Your task to perform on an android device: Find coffee shops on Maps Image 0: 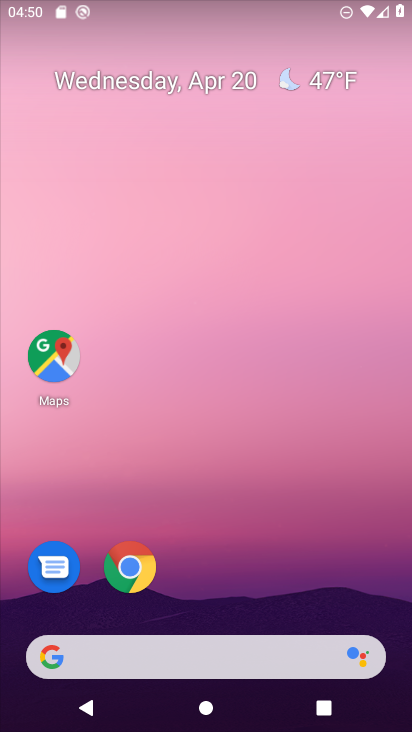
Step 0: click (52, 359)
Your task to perform on an android device: Find coffee shops on Maps Image 1: 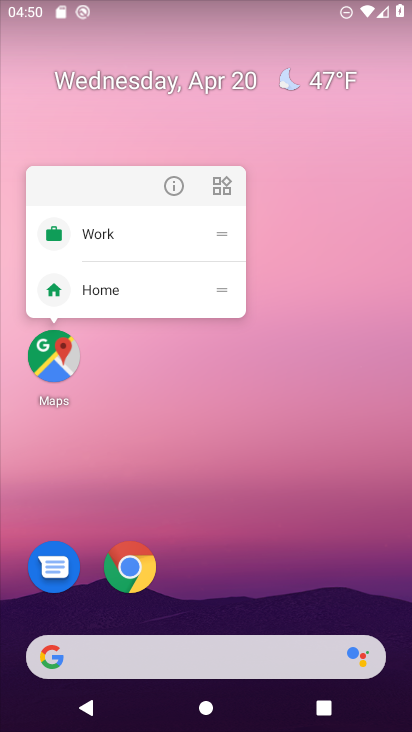
Step 1: click (151, 284)
Your task to perform on an android device: Find coffee shops on Maps Image 2: 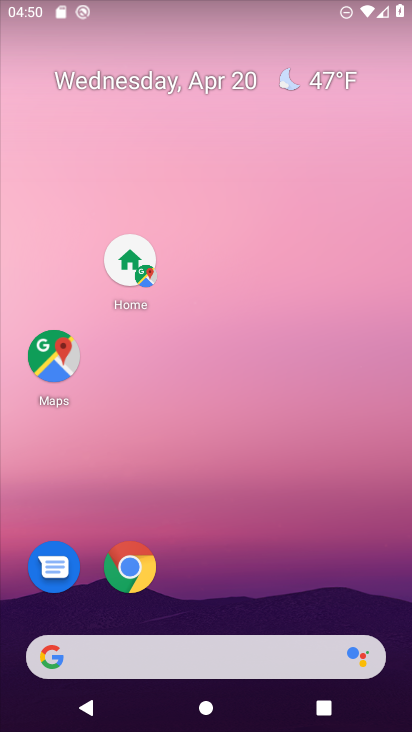
Step 2: click (130, 264)
Your task to perform on an android device: Find coffee shops on Maps Image 3: 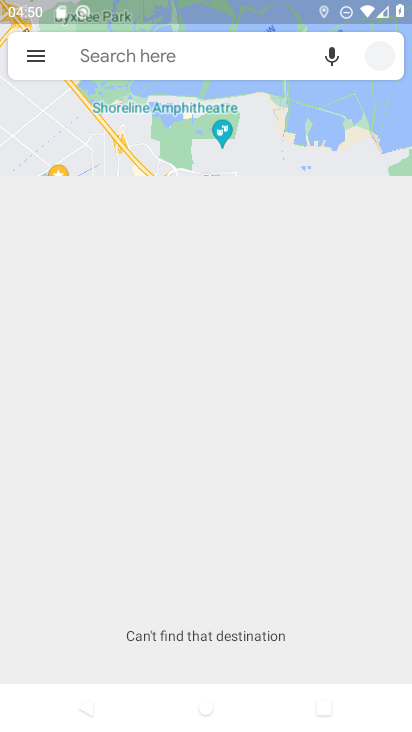
Step 3: click (353, 493)
Your task to perform on an android device: Find coffee shops on Maps Image 4: 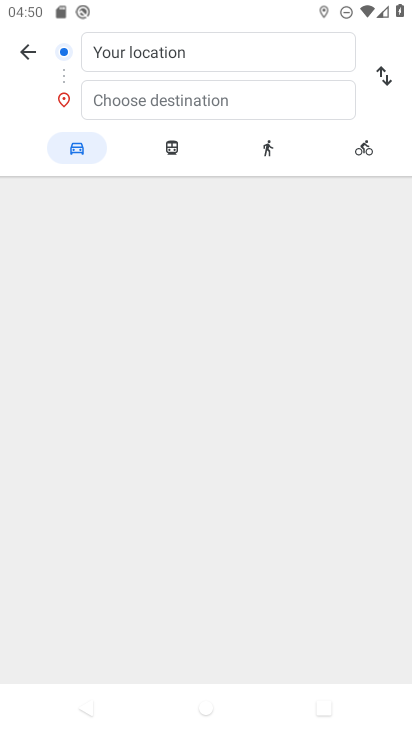
Step 4: click (29, 63)
Your task to perform on an android device: Find coffee shops on Maps Image 5: 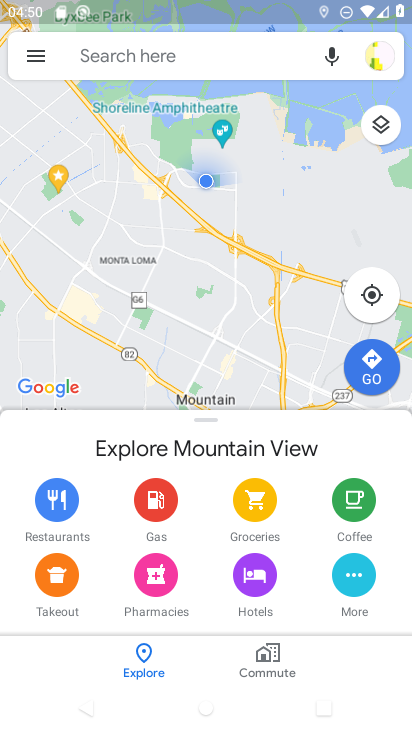
Step 5: click (356, 521)
Your task to perform on an android device: Find coffee shops on Maps Image 6: 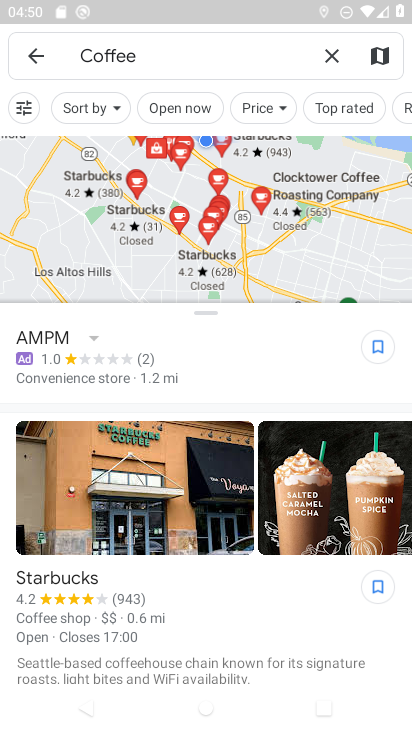
Step 6: task complete